Your task to perform on an android device: What's the weather? Image 0: 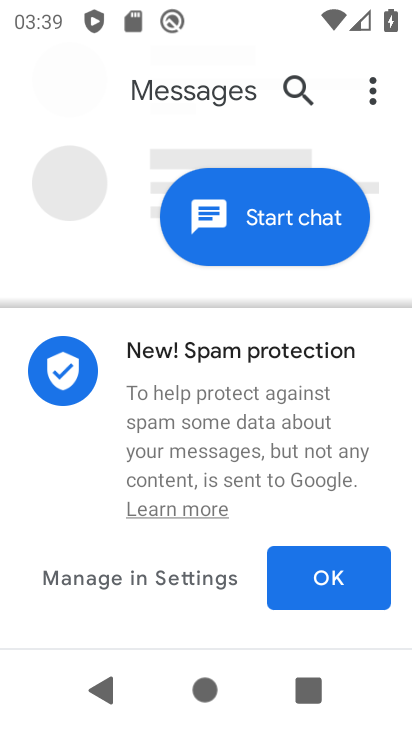
Step 0: press home button
Your task to perform on an android device: What's the weather? Image 1: 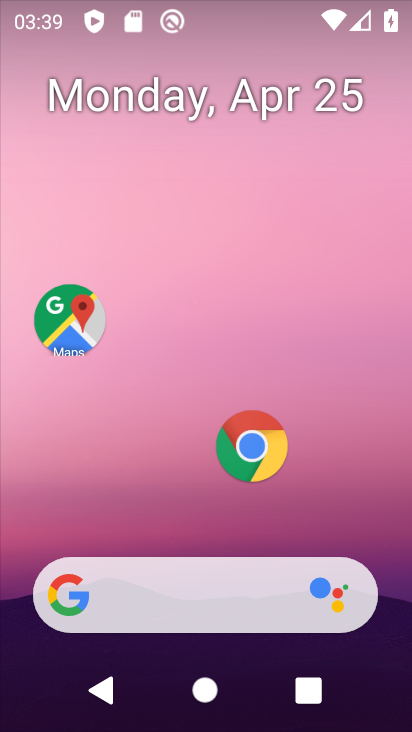
Step 1: click (252, 602)
Your task to perform on an android device: What's the weather? Image 2: 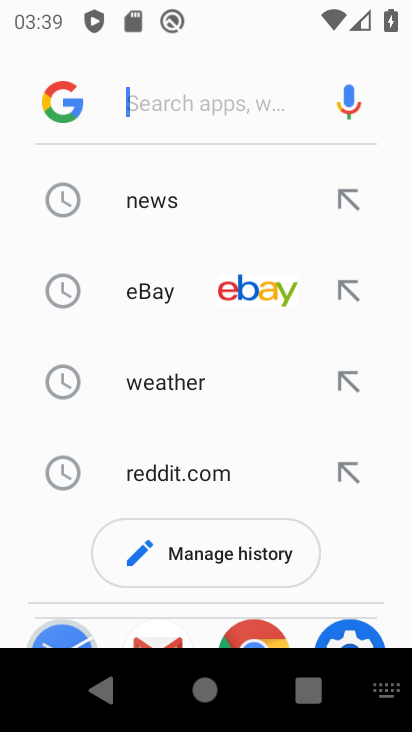
Step 2: click (60, 98)
Your task to perform on an android device: What's the weather? Image 3: 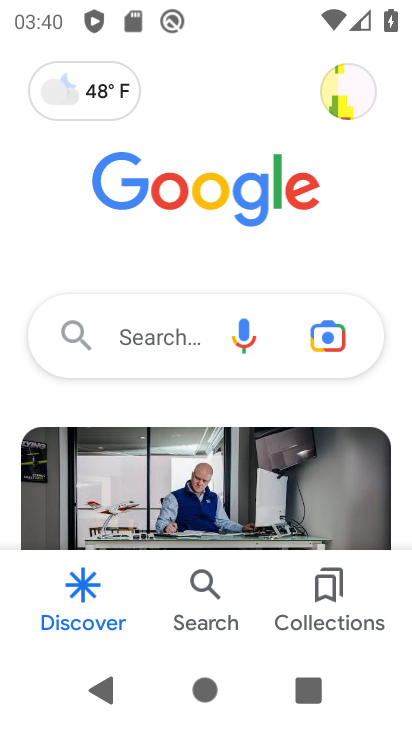
Step 3: click (101, 88)
Your task to perform on an android device: What's the weather? Image 4: 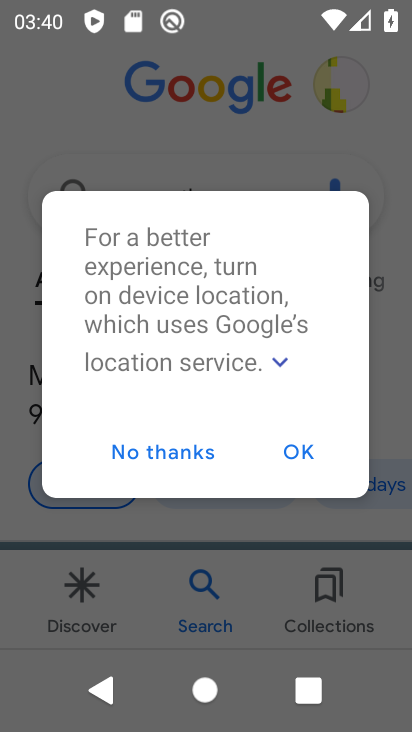
Step 4: click (306, 445)
Your task to perform on an android device: What's the weather? Image 5: 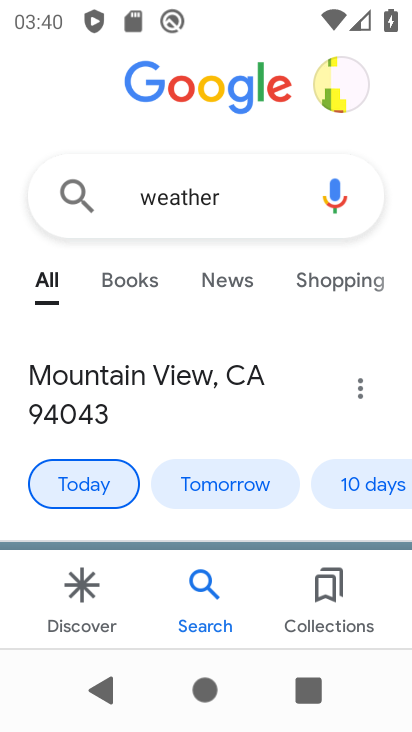
Step 5: task complete